Your task to perform on an android device: Go to Wikipedia Image 0: 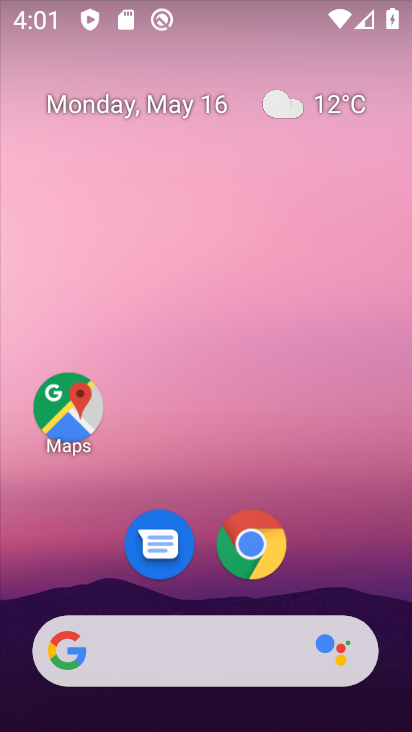
Step 0: click (246, 547)
Your task to perform on an android device: Go to Wikipedia Image 1: 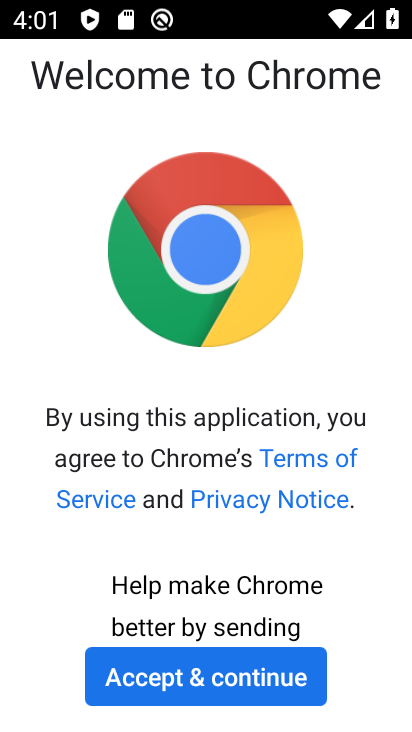
Step 1: click (200, 669)
Your task to perform on an android device: Go to Wikipedia Image 2: 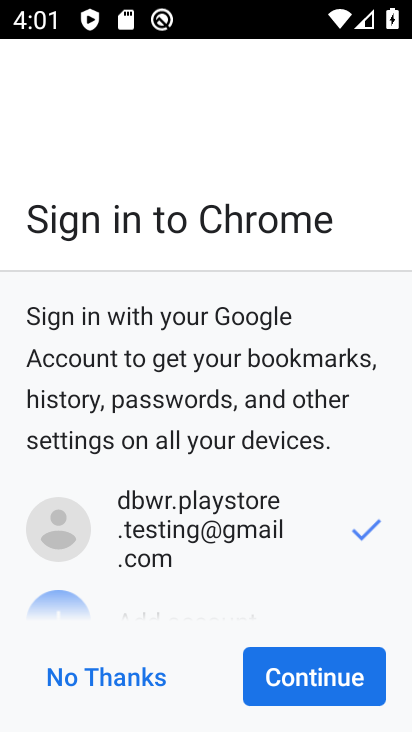
Step 2: click (304, 678)
Your task to perform on an android device: Go to Wikipedia Image 3: 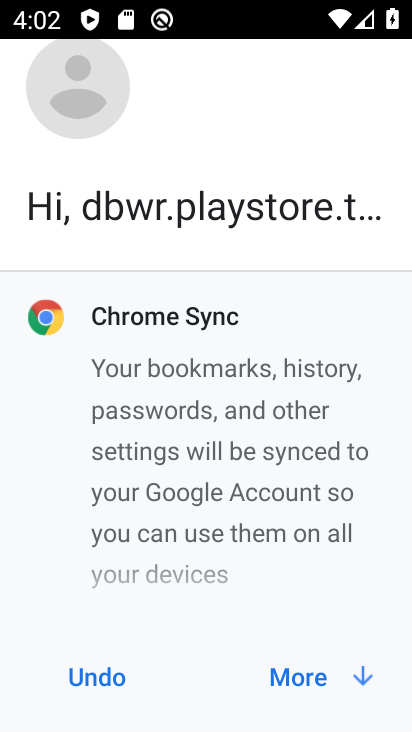
Step 3: click (304, 678)
Your task to perform on an android device: Go to Wikipedia Image 4: 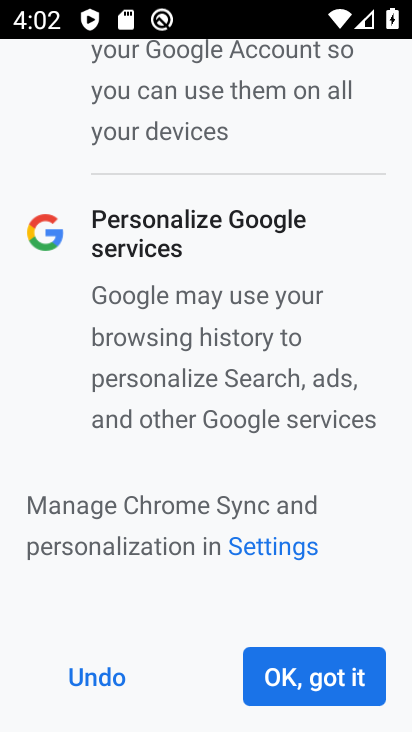
Step 4: click (304, 678)
Your task to perform on an android device: Go to Wikipedia Image 5: 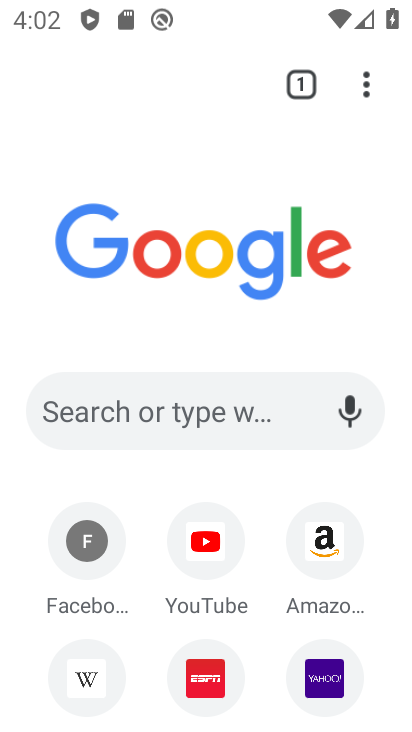
Step 5: click (91, 672)
Your task to perform on an android device: Go to Wikipedia Image 6: 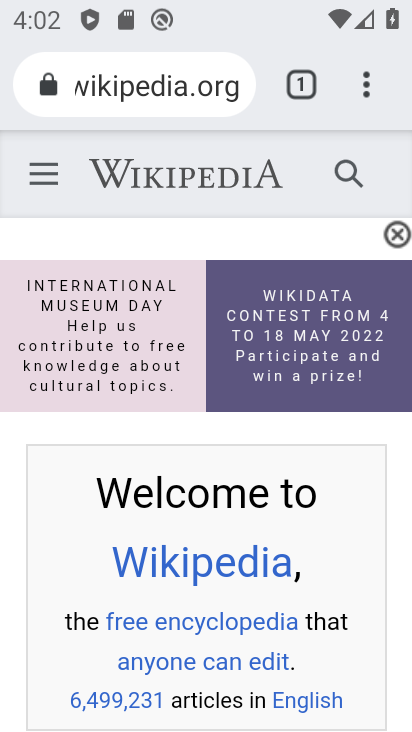
Step 6: task complete